Your task to perform on an android device: turn on sleep mode Image 0: 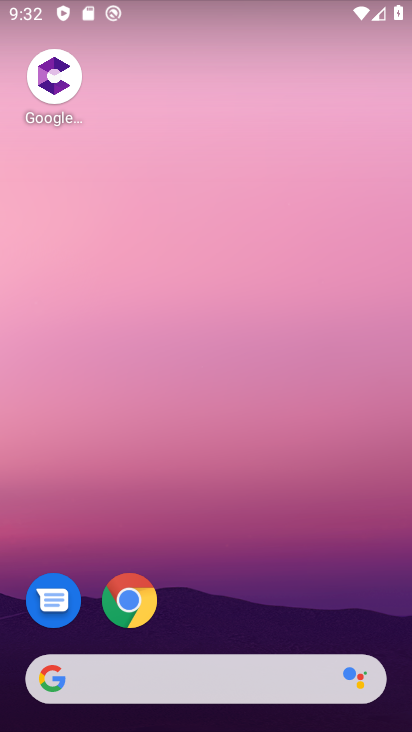
Step 0: drag from (291, 547) to (215, 15)
Your task to perform on an android device: turn on sleep mode Image 1: 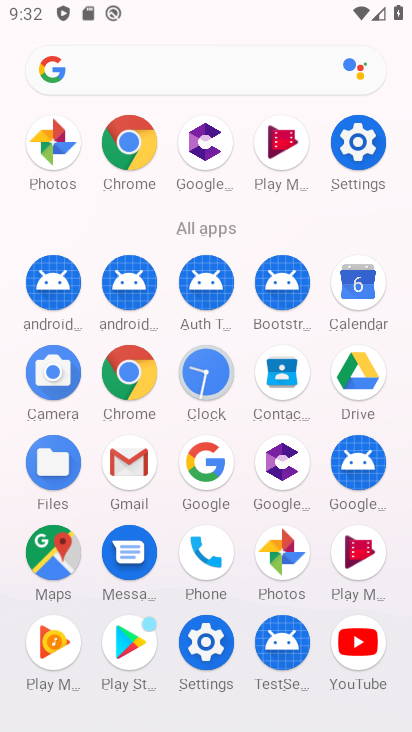
Step 1: click (202, 639)
Your task to perform on an android device: turn on sleep mode Image 2: 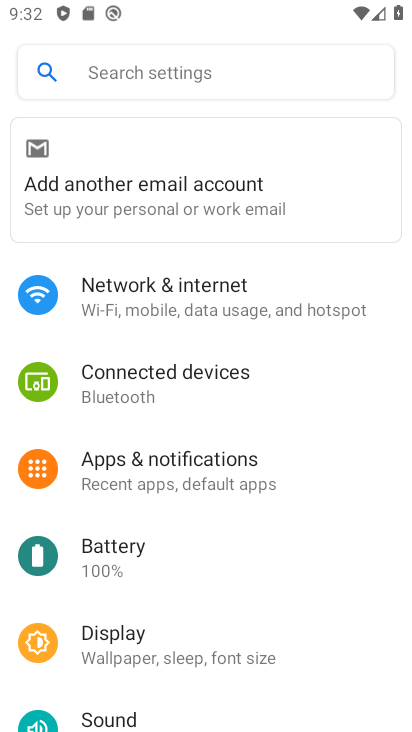
Step 2: click (230, 287)
Your task to perform on an android device: turn on sleep mode Image 3: 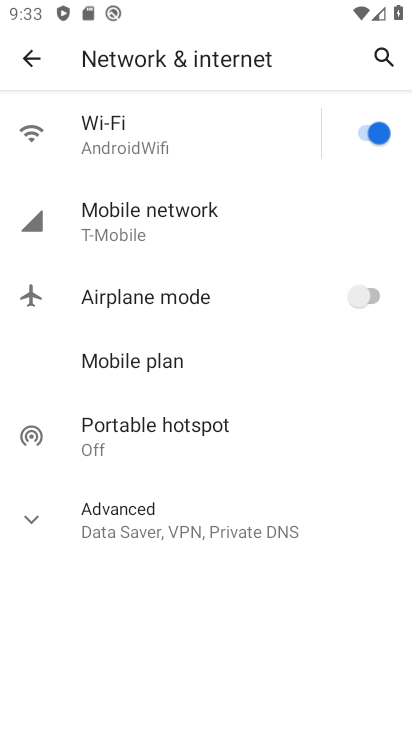
Step 3: click (39, 526)
Your task to perform on an android device: turn on sleep mode Image 4: 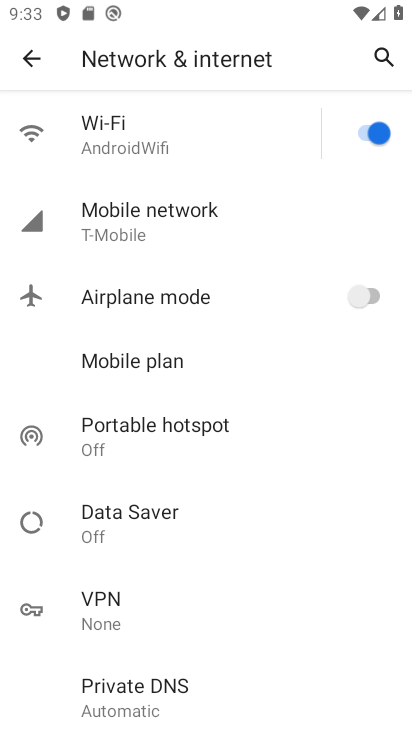
Step 4: task complete